Your task to perform on an android device: change the clock display to show seconds Image 0: 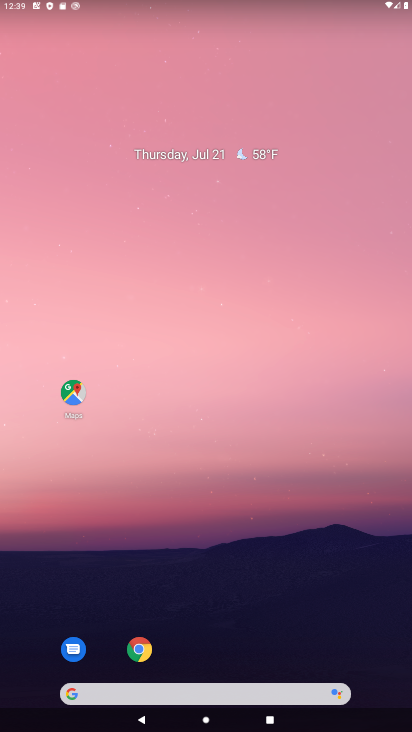
Step 0: drag from (376, 659) to (327, 149)
Your task to perform on an android device: change the clock display to show seconds Image 1: 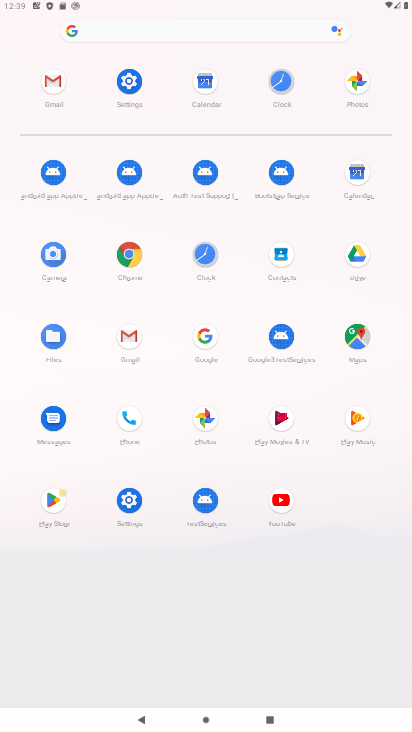
Step 1: click (204, 251)
Your task to perform on an android device: change the clock display to show seconds Image 2: 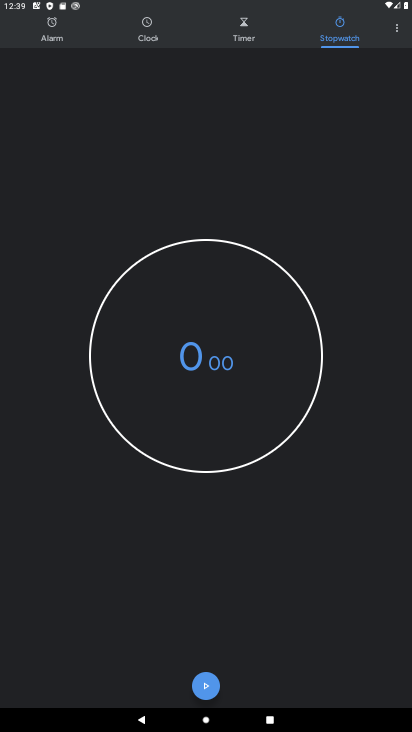
Step 2: click (399, 34)
Your task to perform on an android device: change the clock display to show seconds Image 3: 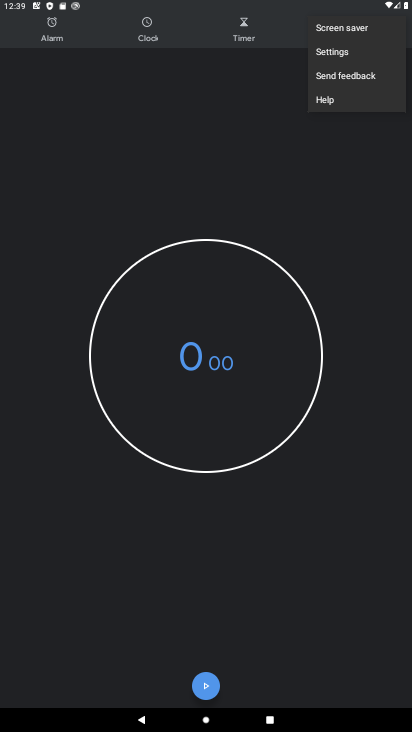
Step 3: click (326, 55)
Your task to perform on an android device: change the clock display to show seconds Image 4: 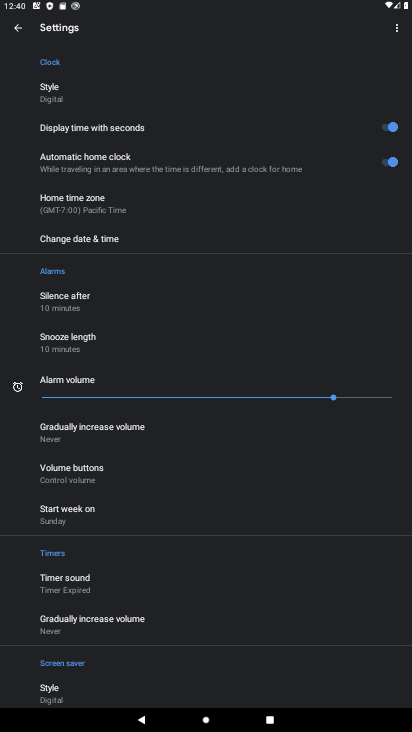
Step 4: task complete